Your task to perform on an android device: open chrome and create a bookmark for the current page Image 0: 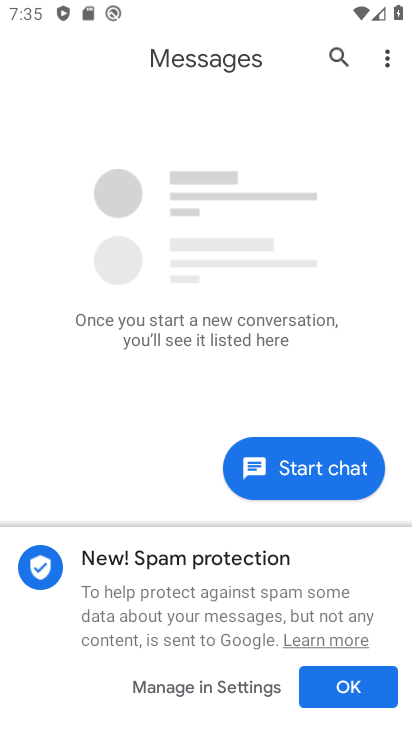
Step 0: press home button
Your task to perform on an android device: open chrome and create a bookmark for the current page Image 1: 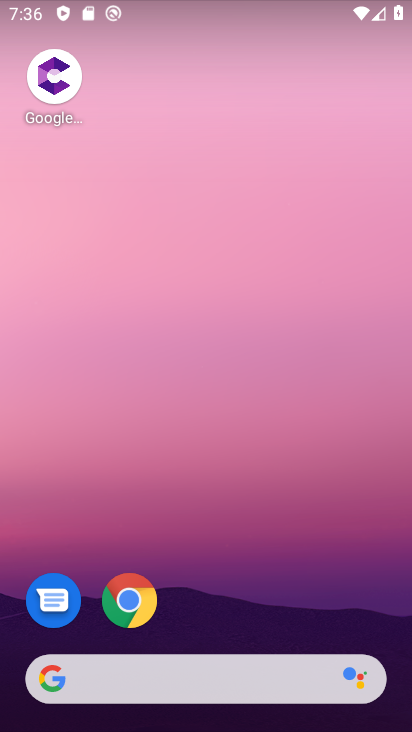
Step 1: click (134, 609)
Your task to perform on an android device: open chrome and create a bookmark for the current page Image 2: 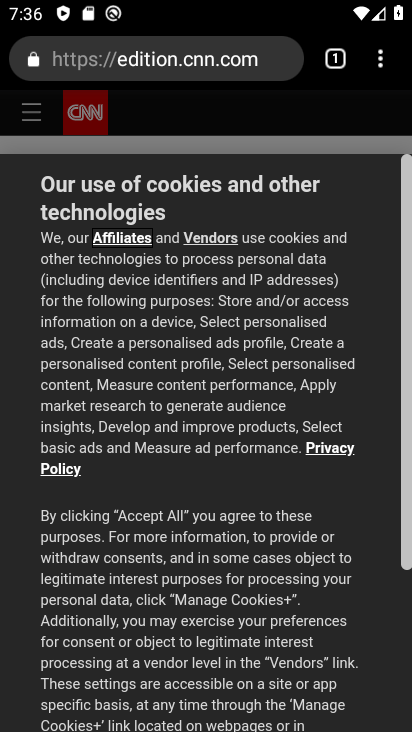
Step 2: click (384, 65)
Your task to perform on an android device: open chrome and create a bookmark for the current page Image 3: 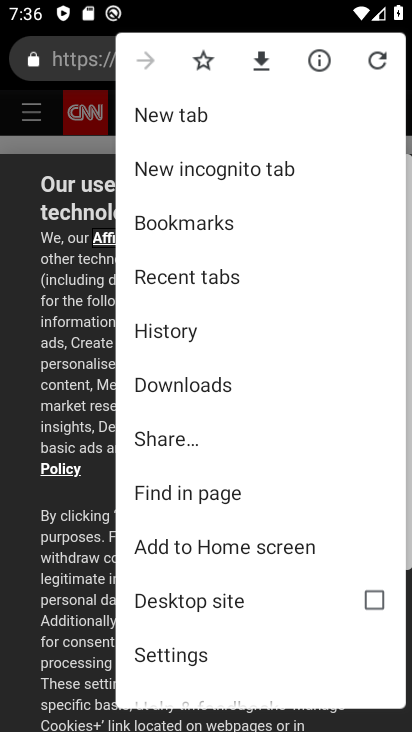
Step 3: click (206, 59)
Your task to perform on an android device: open chrome and create a bookmark for the current page Image 4: 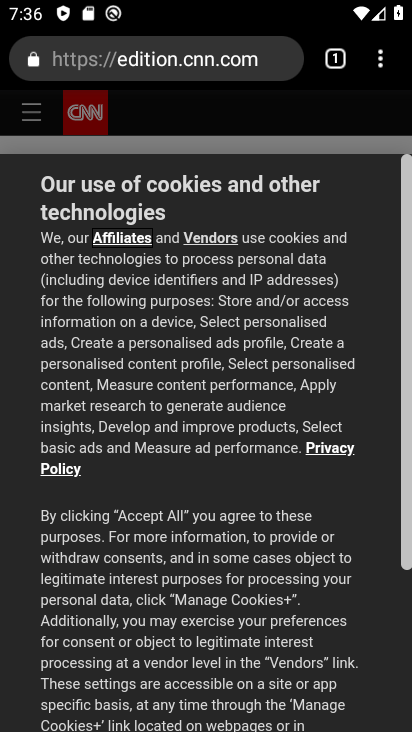
Step 4: task complete